Your task to perform on an android device: Go to network settings Image 0: 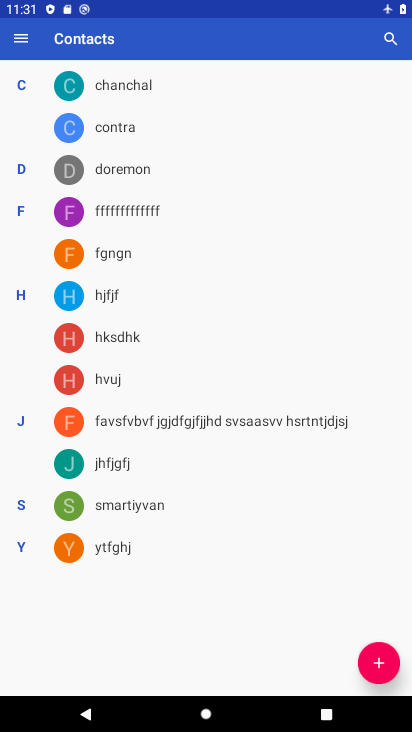
Step 0: press home button
Your task to perform on an android device: Go to network settings Image 1: 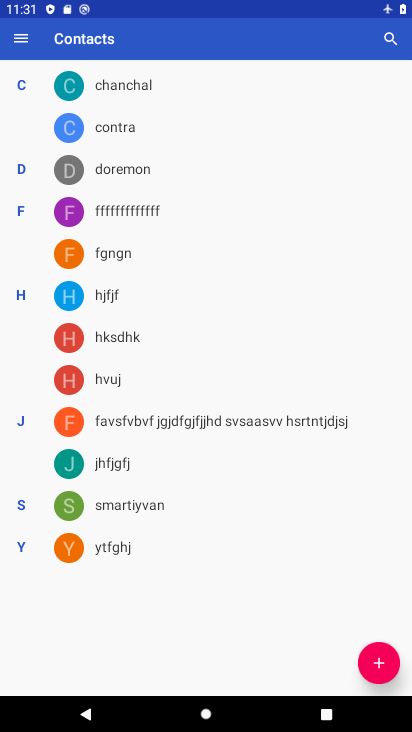
Step 1: drag from (141, 593) to (294, 200)
Your task to perform on an android device: Go to network settings Image 2: 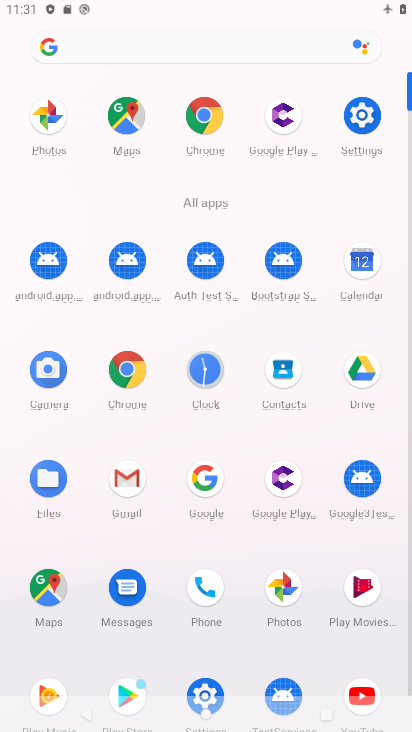
Step 2: click (199, 683)
Your task to perform on an android device: Go to network settings Image 3: 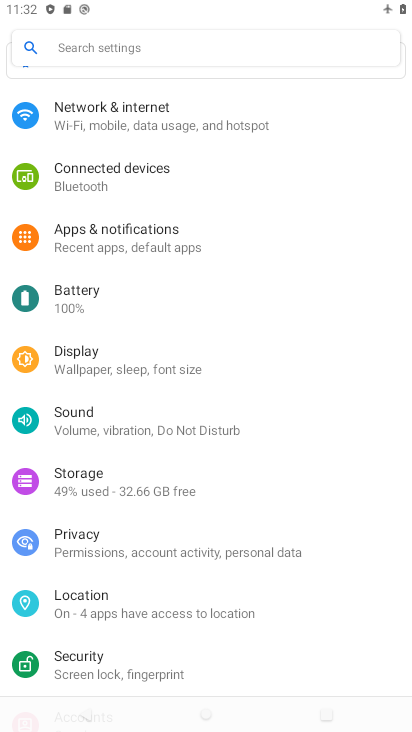
Step 3: click (137, 108)
Your task to perform on an android device: Go to network settings Image 4: 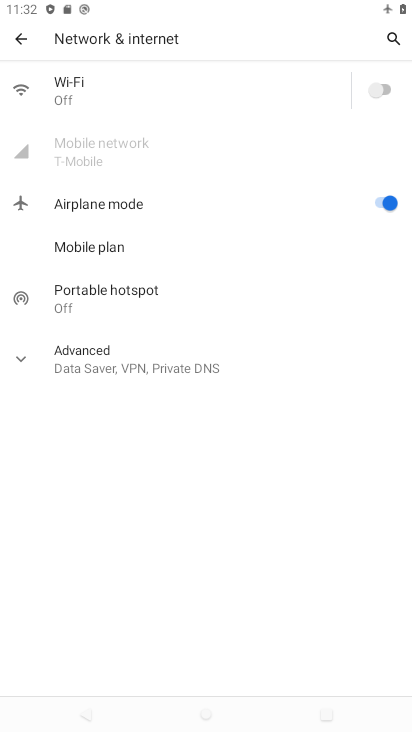
Step 4: drag from (249, 492) to (268, 381)
Your task to perform on an android device: Go to network settings Image 5: 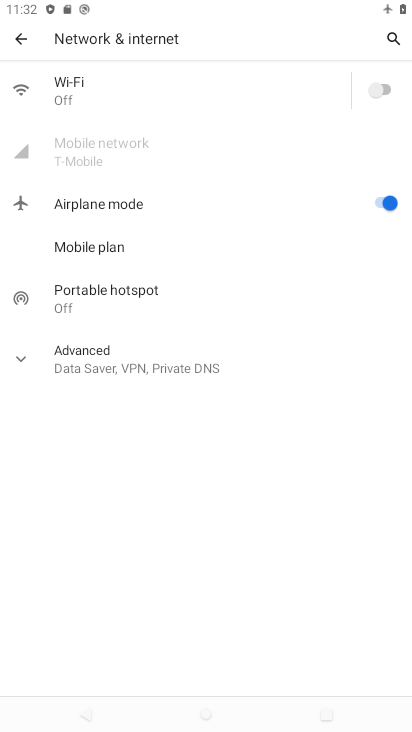
Step 5: click (117, 159)
Your task to perform on an android device: Go to network settings Image 6: 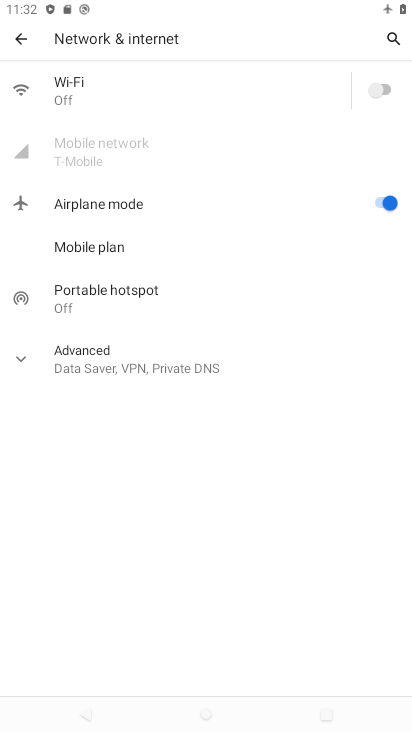
Step 6: task complete